Your task to perform on an android device: Go to Google maps Image 0: 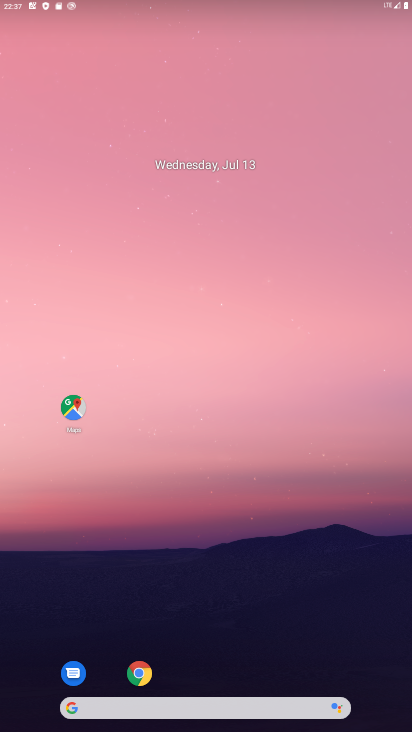
Step 0: click (400, 669)
Your task to perform on an android device: Go to Google maps Image 1: 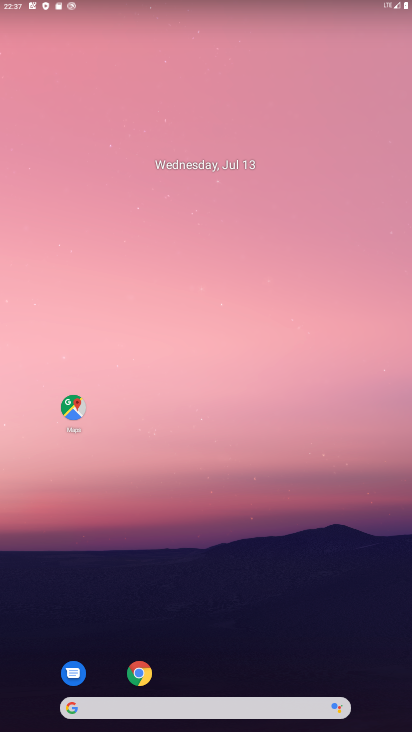
Step 1: drag from (178, 631) to (210, 217)
Your task to perform on an android device: Go to Google maps Image 2: 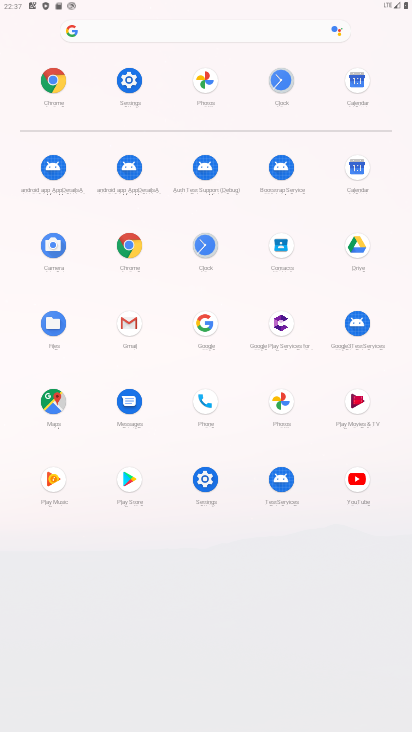
Step 2: click (42, 393)
Your task to perform on an android device: Go to Google maps Image 3: 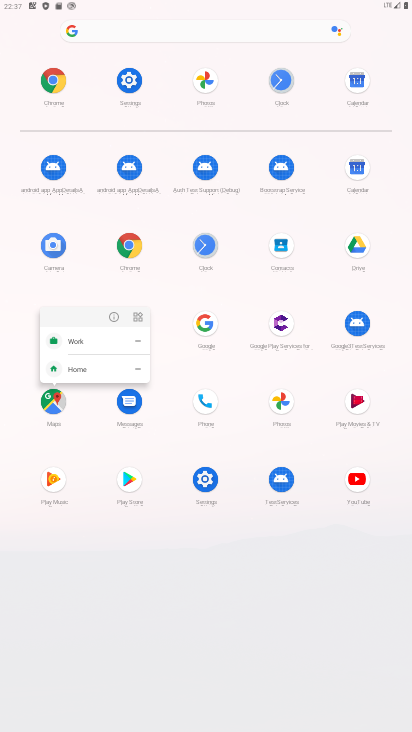
Step 3: click (110, 315)
Your task to perform on an android device: Go to Google maps Image 4: 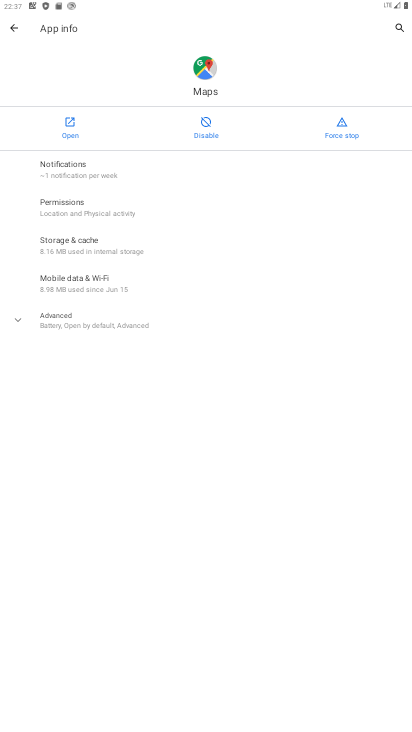
Step 4: click (61, 127)
Your task to perform on an android device: Go to Google maps Image 5: 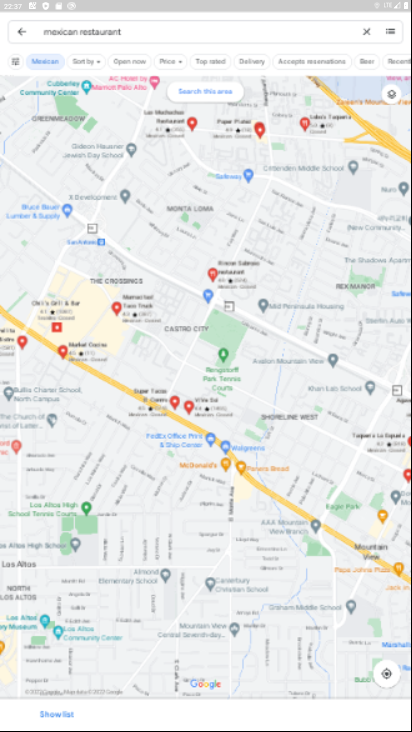
Step 5: task complete